Your task to perform on an android device: add a label to a message in the gmail app Image 0: 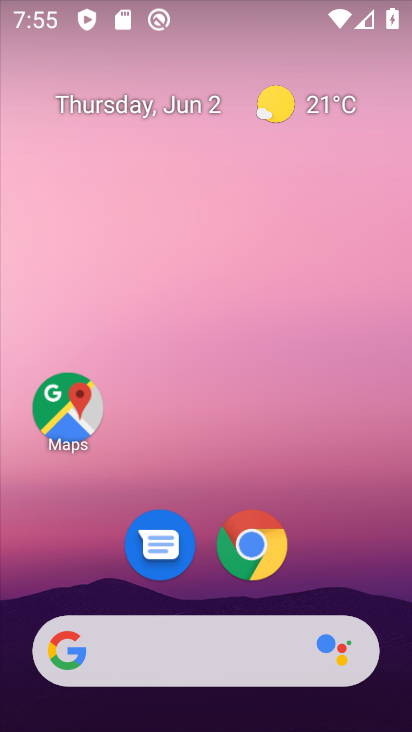
Step 0: drag from (289, 582) to (232, 35)
Your task to perform on an android device: add a label to a message in the gmail app Image 1: 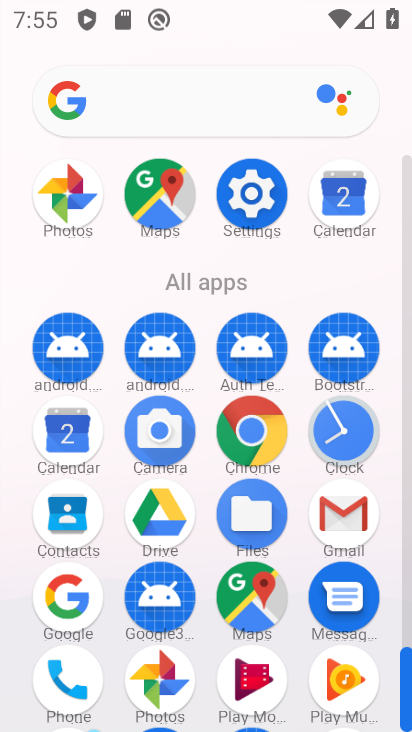
Step 1: click (339, 524)
Your task to perform on an android device: add a label to a message in the gmail app Image 2: 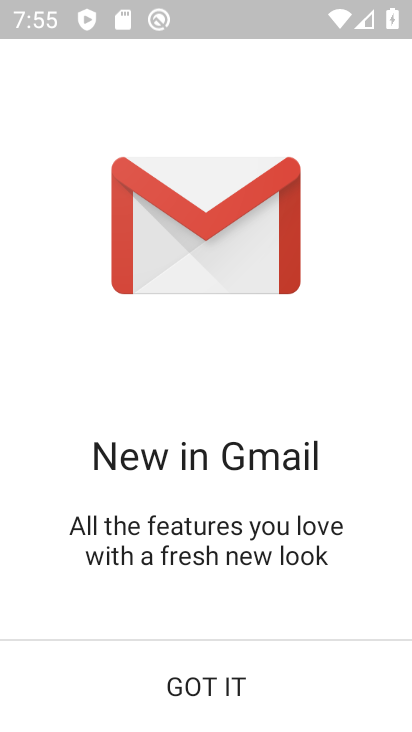
Step 2: click (219, 685)
Your task to perform on an android device: add a label to a message in the gmail app Image 3: 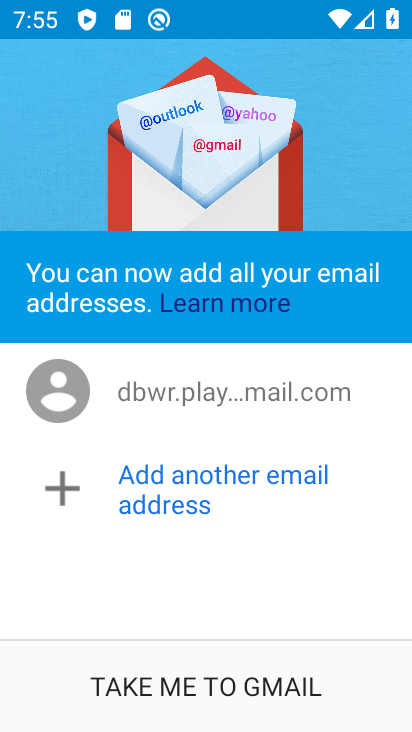
Step 3: click (219, 685)
Your task to perform on an android device: add a label to a message in the gmail app Image 4: 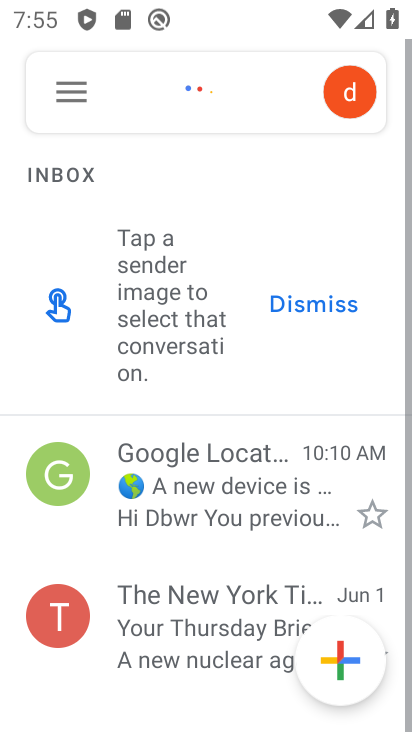
Step 4: click (247, 495)
Your task to perform on an android device: add a label to a message in the gmail app Image 5: 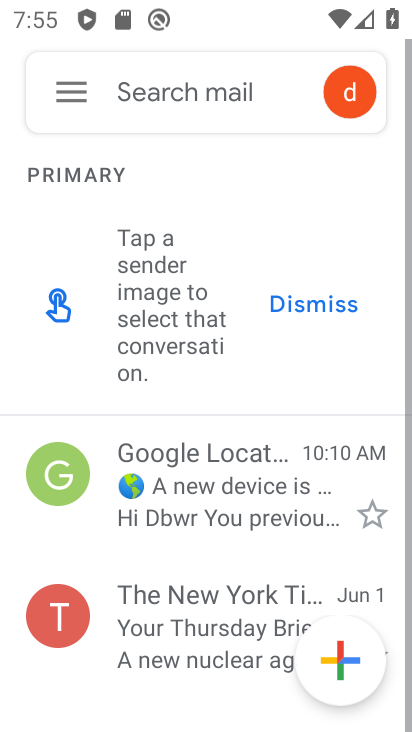
Step 5: click (247, 495)
Your task to perform on an android device: add a label to a message in the gmail app Image 6: 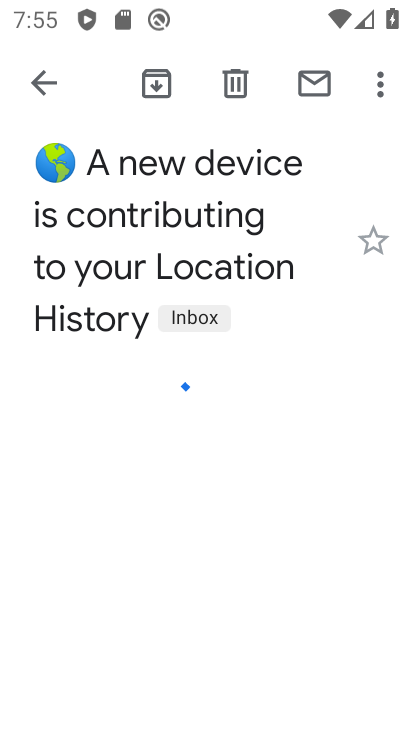
Step 6: click (374, 79)
Your task to perform on an android device: add a label to a message in the gmail app Image 7: 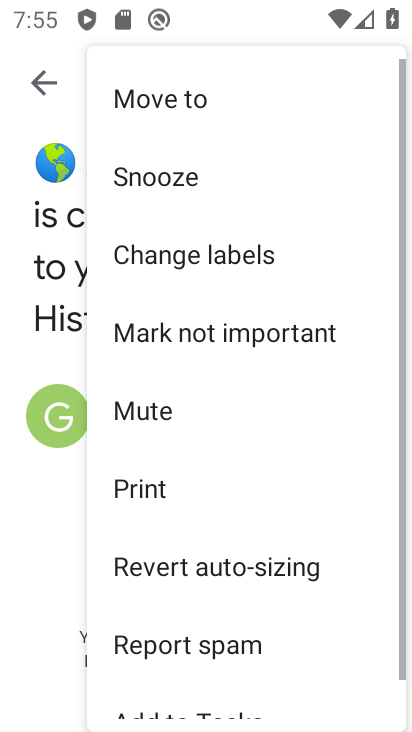
Step 7: click (301, 256)
Your task to perform on an android device: add a label to a message in the gmail app Image 8: 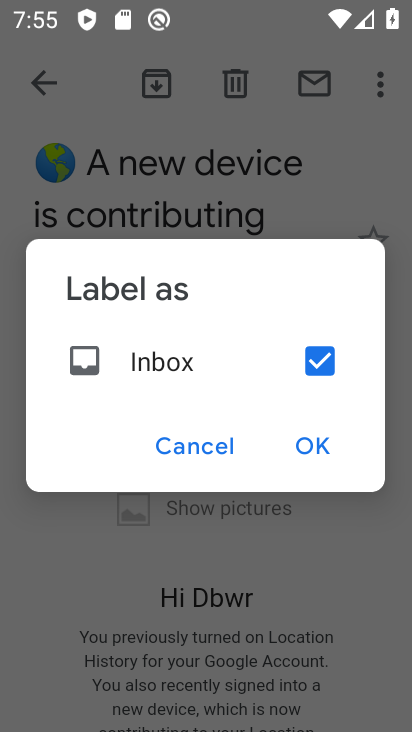
Step 8: click (325, 439)
Your task to perform on an android device: add a label to a message in the gmail app Image 9: 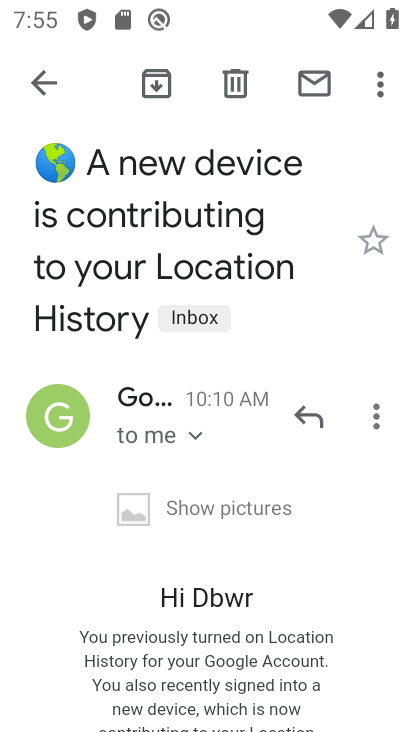
Step 9: task complete